Your task to perform on an android device: add a contact Image 0: 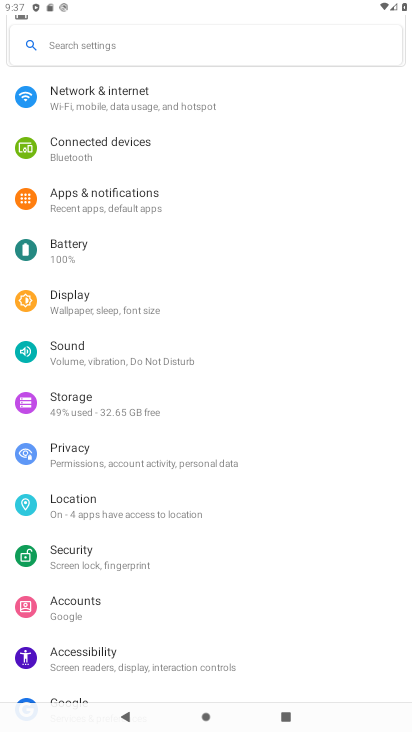
Step 0: press home button
Your task to perform on an android device: add a contact Image 1: 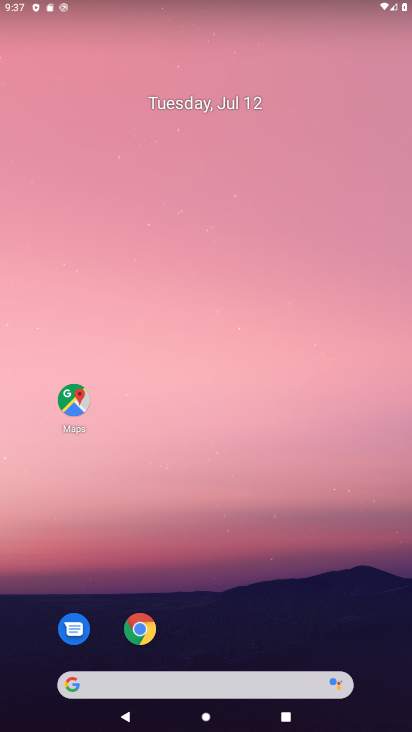
Step 1: drag from (214, 675) to (306, 83)
Your task to perform on an android device: add a contact Image 2: 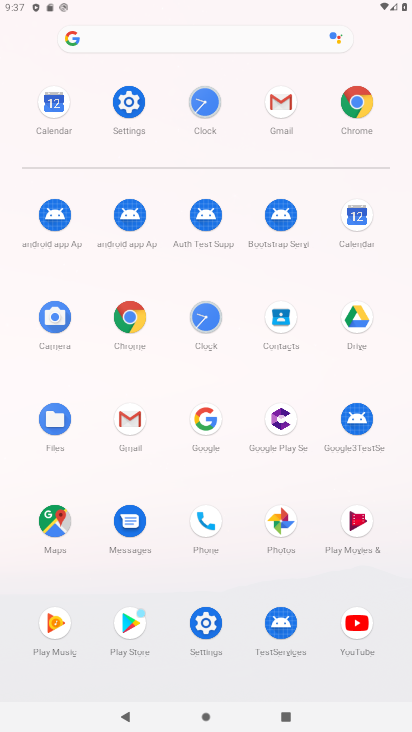
Step 2: click (292, 318)
Your task to perform on an android device: add a contact Image 3: 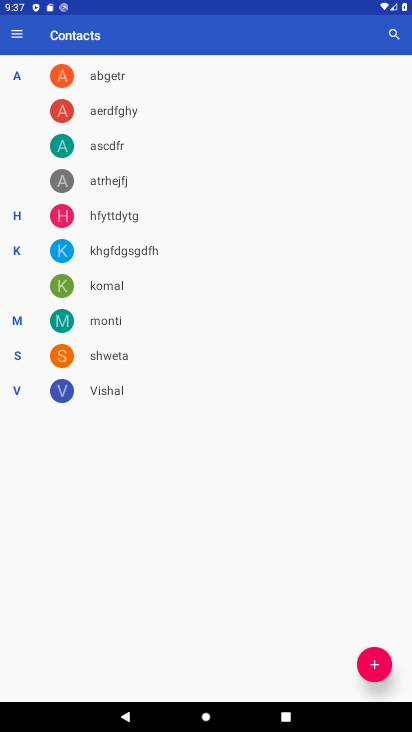
Step 3: click (368, 666)
Your task to perform on an android device: add a contact Image 4: 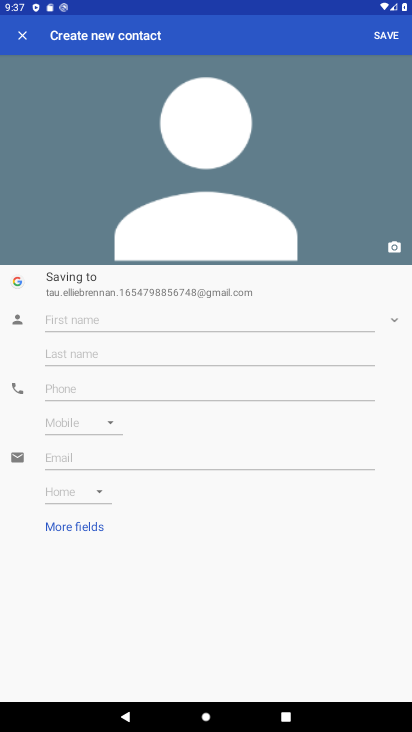
Step 4: click (69, 320)
Your task to perform on an android device: add a contact Image 5: 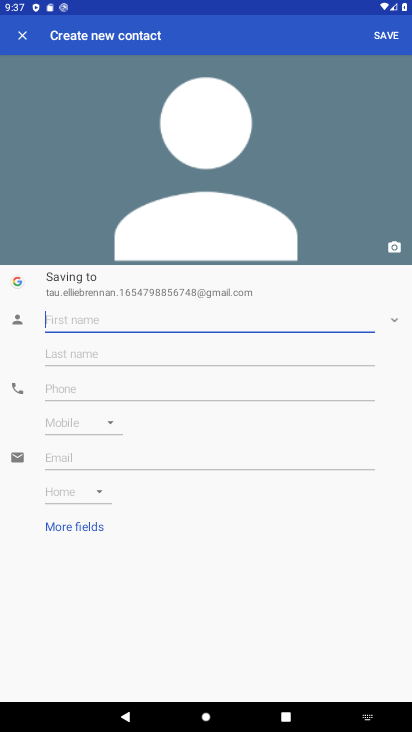
Step 5: type "akanksha"
Your task to perform on an android device: add a contact Image 6: 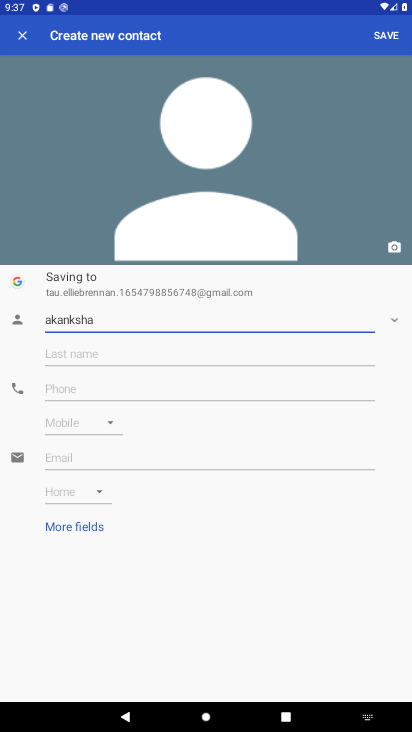
Step 6: click (121, 387)
Your task to perform on an android device: add a contact Image 7: 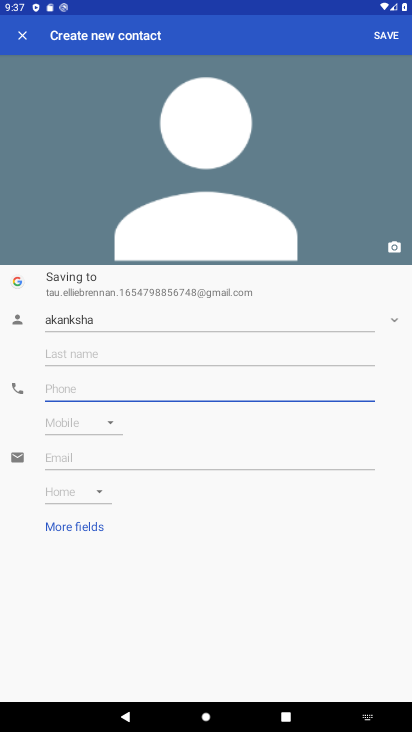
Step 7: type "9456786545"
Your task to perform on an android device: add a contact Image 8: 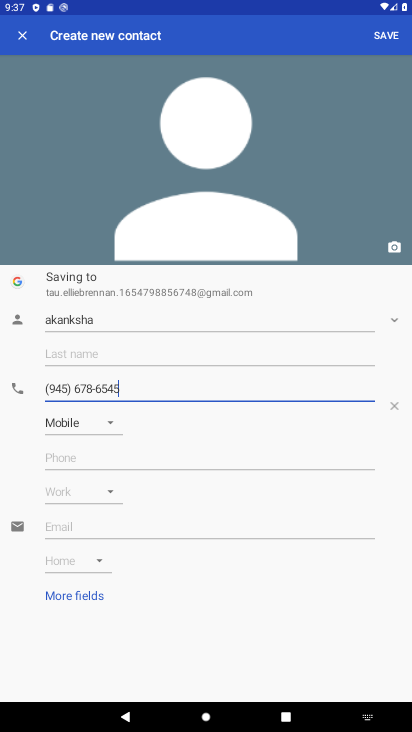
Step 8: click (390, 31)
Your task to perform on an android device: add a contact Image 9: 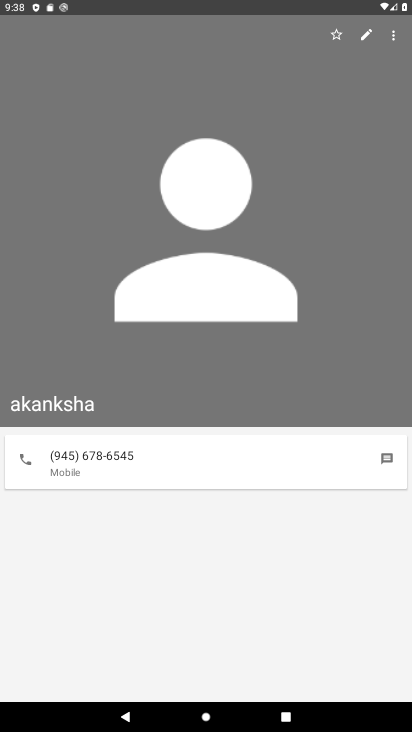
Step 9: task complete